Your task to perform on an android device: Go to network settings Image 0: 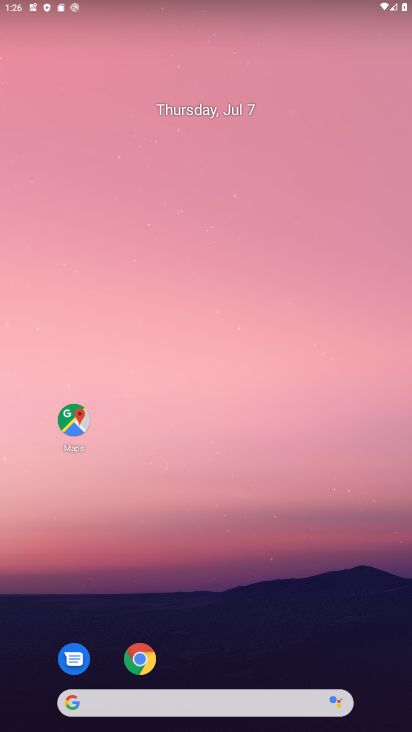
Step 0: drag from (211, 665) to (202, 98)
Your task to perform on an android device: Go to network settings Image 1: 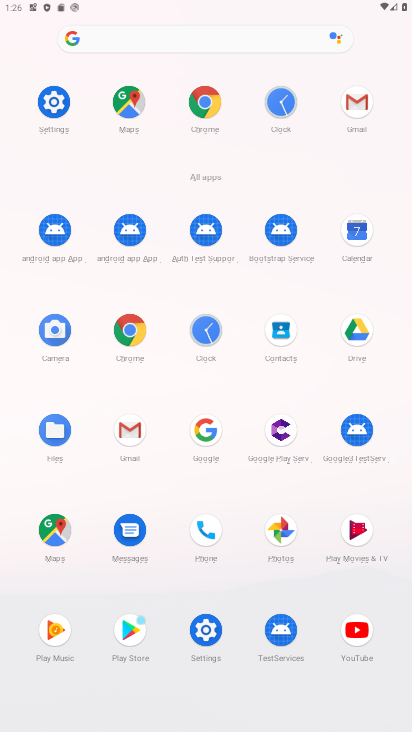
Step 1: click (54, 102)
Your task to perform on an android device: Go to network settings Image 2: 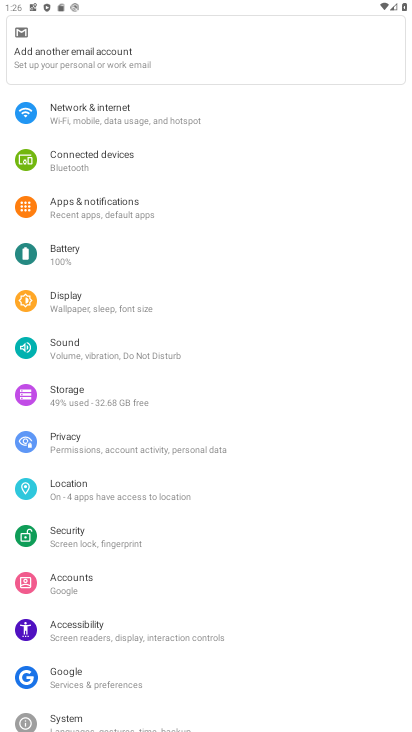
Step 2: click (132, 106)
Your task to perform on an android device: Go to network settings Image 3: 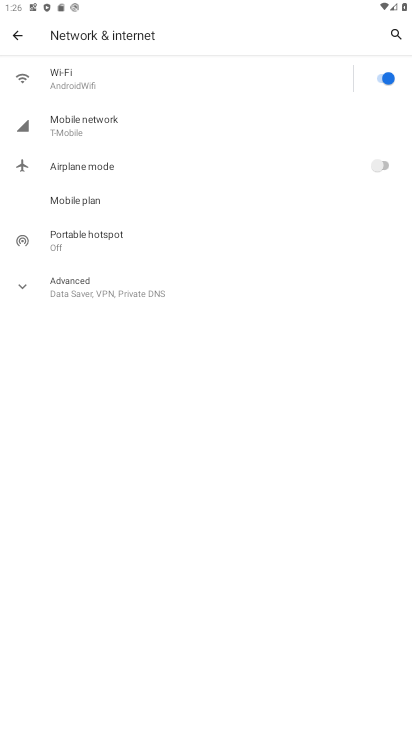
Step 3: click (24, 282)
Your task to perform on an android device: Go to network settings Image 4: 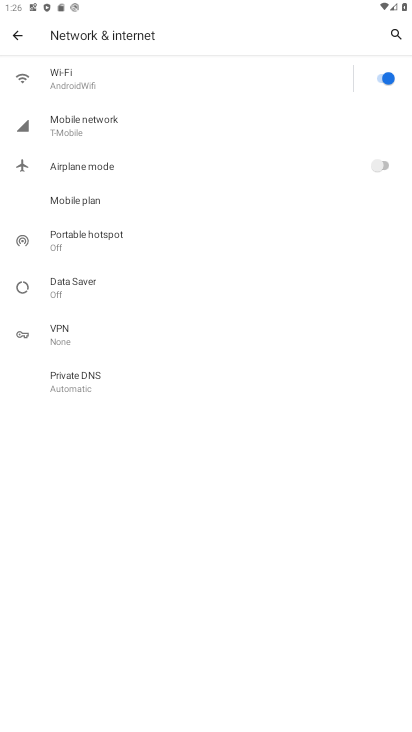
Step 4: click (135, 126)
Your task to perform on an android device: Go to network settings Image 5: 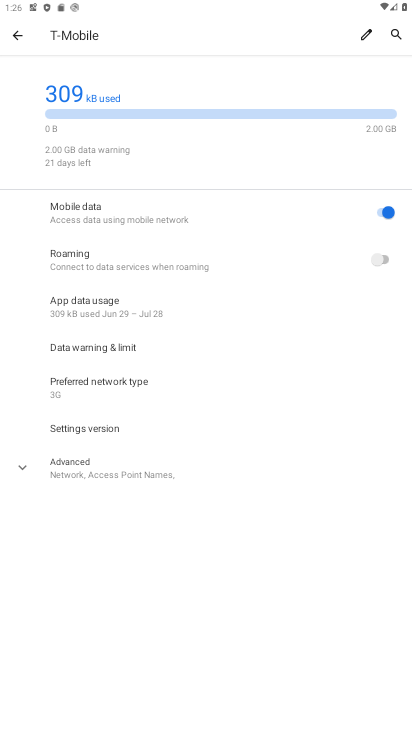
Step 5: task complete